Your task to perform on an android device: install app "Etsy: Buy & Sell Unique Items" Image 0: 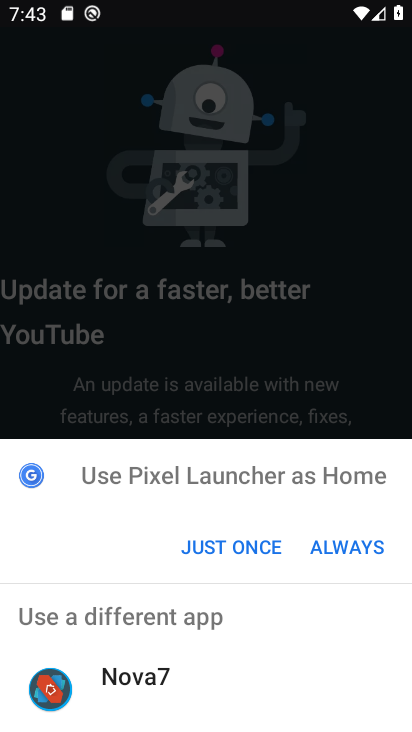
Step 0: press home button
Your task to perform on an android device: install app "Etsy: Buy & Sell Unique Items" Image 1: 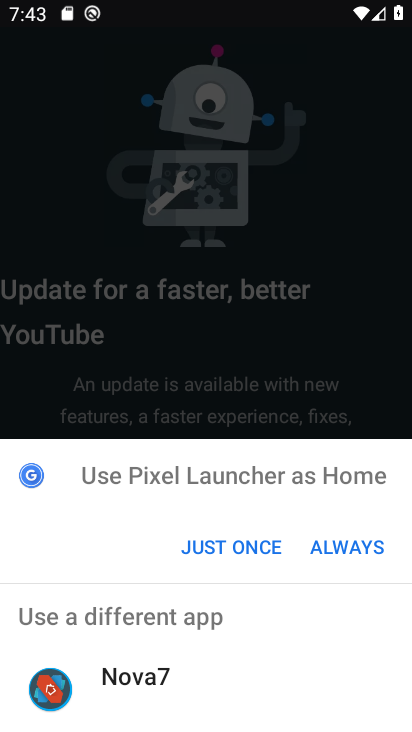
Step 1: press home button
Your task to perform on an android device: install app "Etsy: Buy & Sell Unique Items" Image 2: 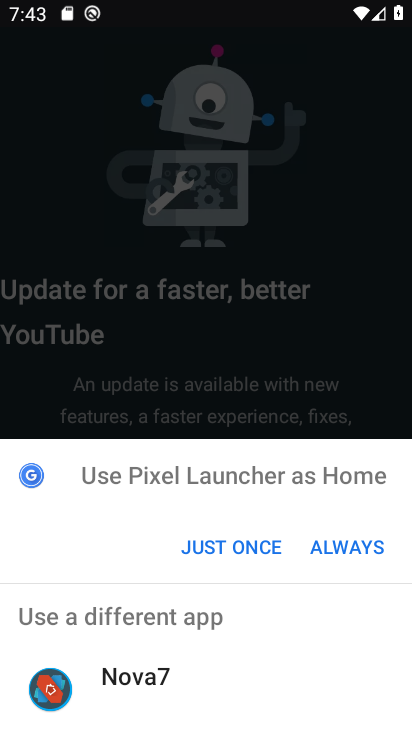
Step 2: press home button
Your task to perform on an android device: install app "Etsy: Buy & Sell Unique Items" Image 3: 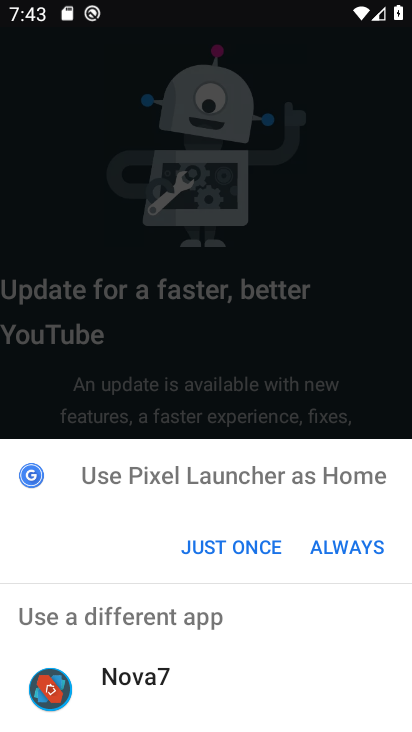
Step 3: press home button
Your task to perform on an android device: install app "Etsy: Buy & Sell Unique Items" Image 4: 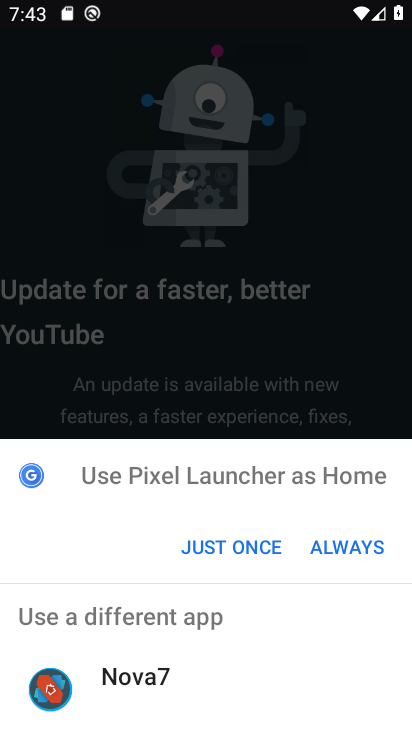
Step 4: press home button
Your task to perform on an android device: install app "Etsy: Buy & Sell Unique Items" Image 5: 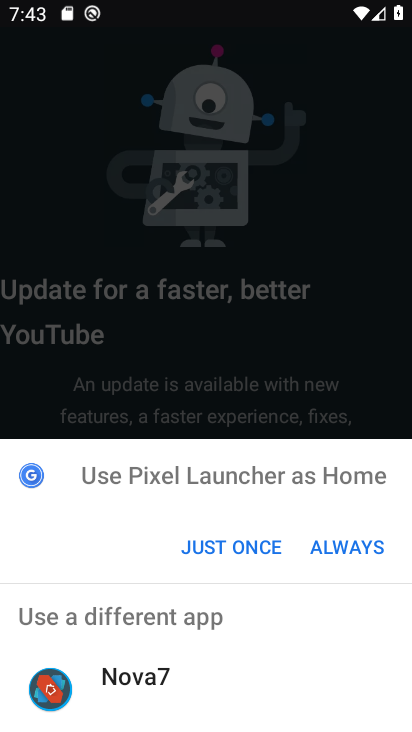
Step 5: press home button
Your task to perform on an android device: install app "Etsy: Buy & Sell Unique Items" Image 6: 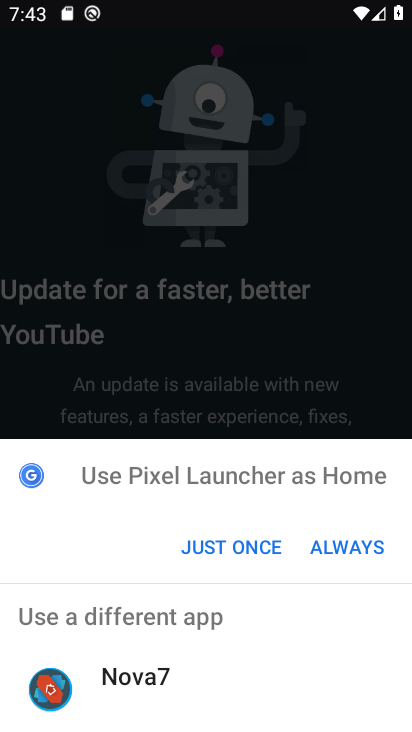
Step 6: press home button
Your task to perform on an android device: install app "Etsy: Buy & Sell Unique Items" Image 7: 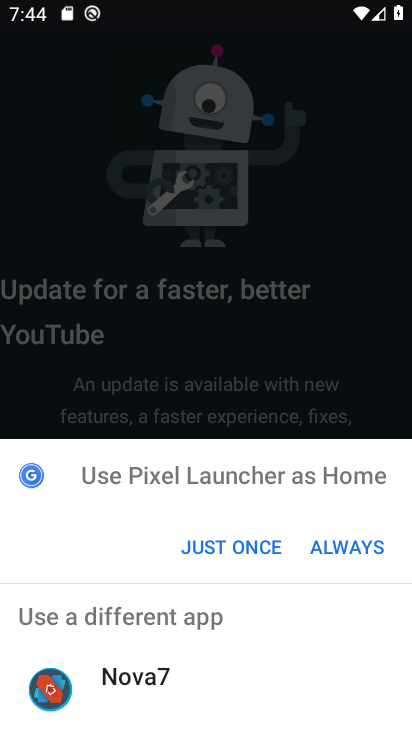
Step 7: press back button
Your task to perform on an android device: install app "Etsy: Buy & Sell Unique Items" Image 8: 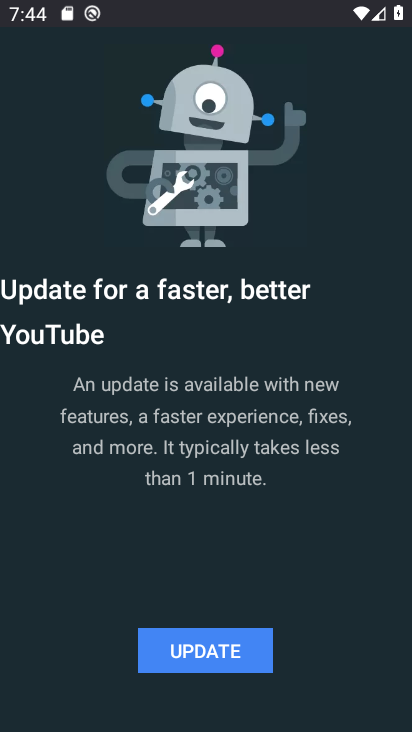
Step 8: press home button
Your task to perform on an android device: install app "Etsy: Buy & Sell Unique Items" Image 9: 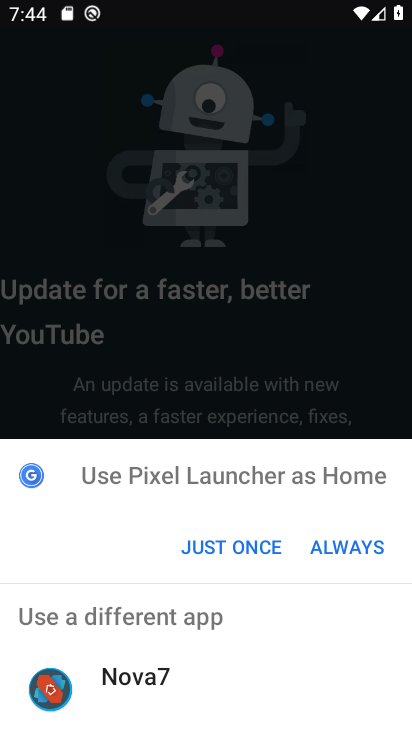
Step 9: click (247, 545)
Your task to perform on an android device: install app "Etsy: Buy & Sell Unique Items" Image 10: 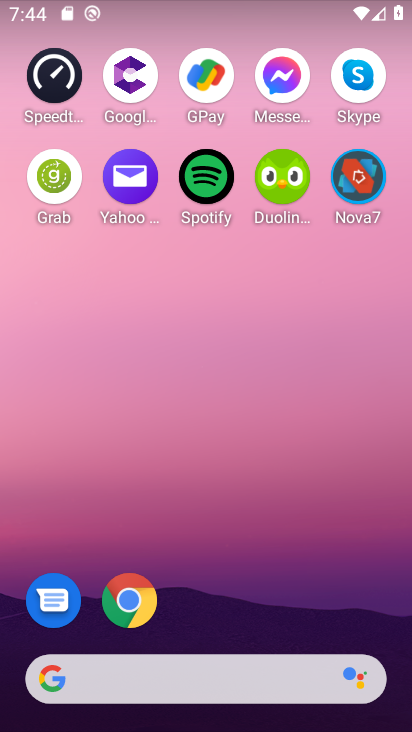
Step 10: drag from (202, 582) to (198, 60)
Your task to perform on an android device: install app "Etsy: Buy & Sell Unique Items" Image 11: 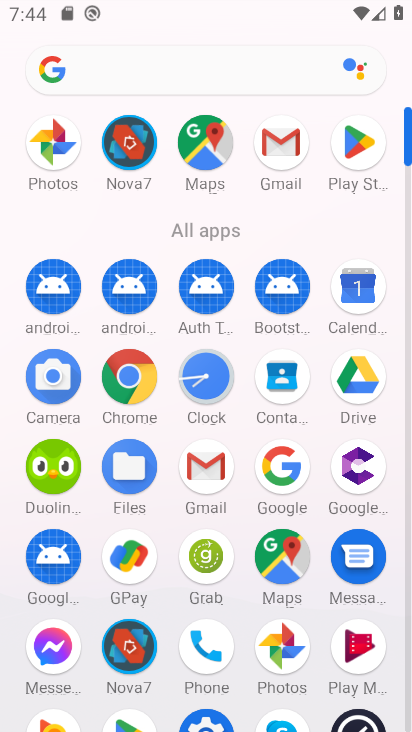
Step 11: click (357, 152)
Your task to perform on an android device: install app "Etsy: Buy & Sell Unique Items" Image 12: 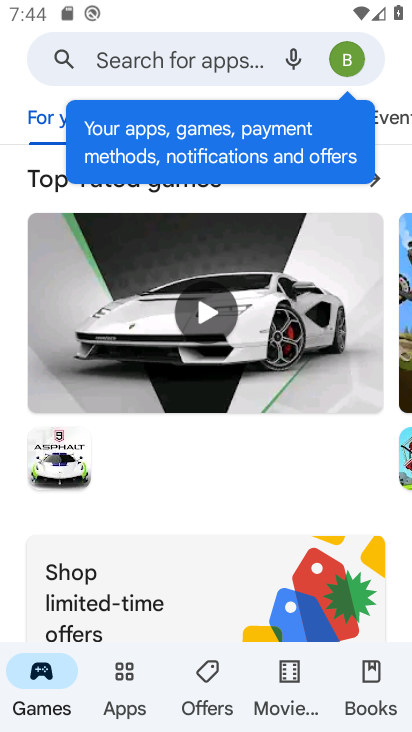
Step 12: click (197, 56)
Your task to perform on an android device: install app "Etsy: Buy & Sell Unique Items" Image 13: 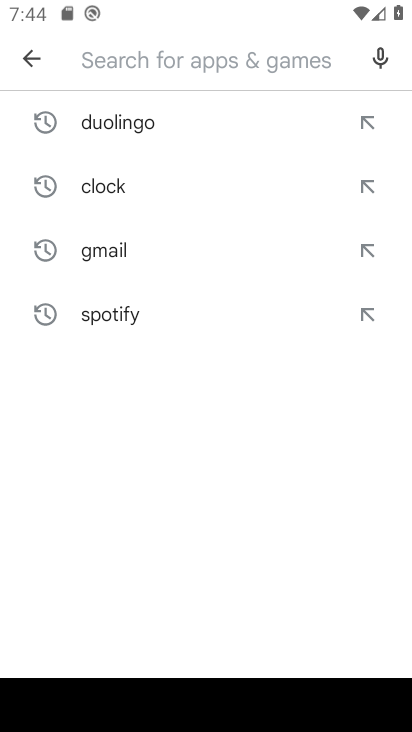
Step 13: type "Etsy"
Your task to perform on an android device: install app "Etsy: Buy & Sell Unique Items" Image 14: 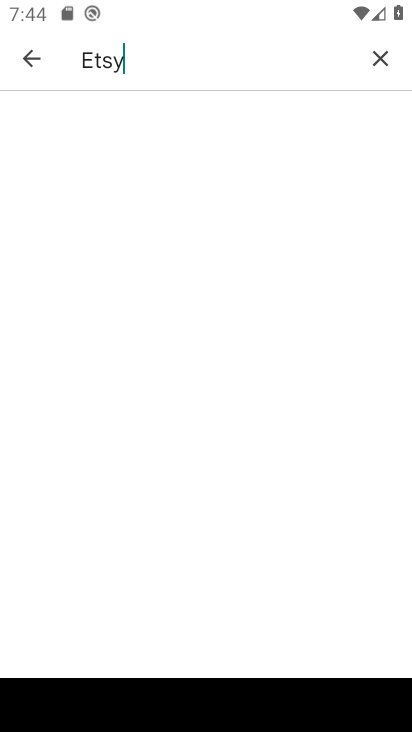
Step 14: click (377, 58)
Your task to perform on an android device: install app "Etsy: Buy & Sell Unique Items" Image 15: 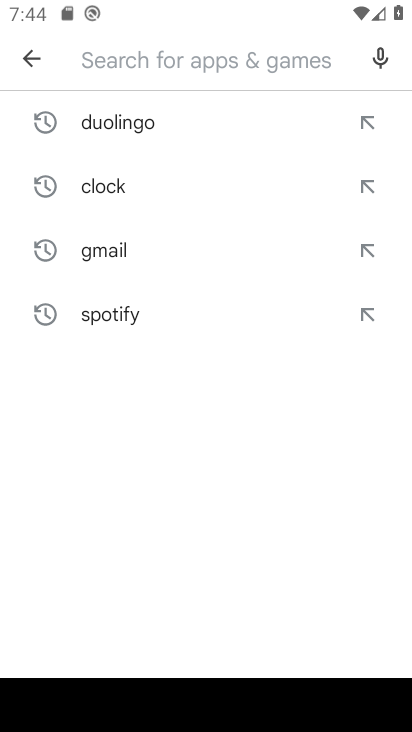
Step 15: type "Etsy: Buy & Sell Unique Items"
Your task to perform on an android device: install app "Etsy: Buy & Sell Unique Items" Image 16: 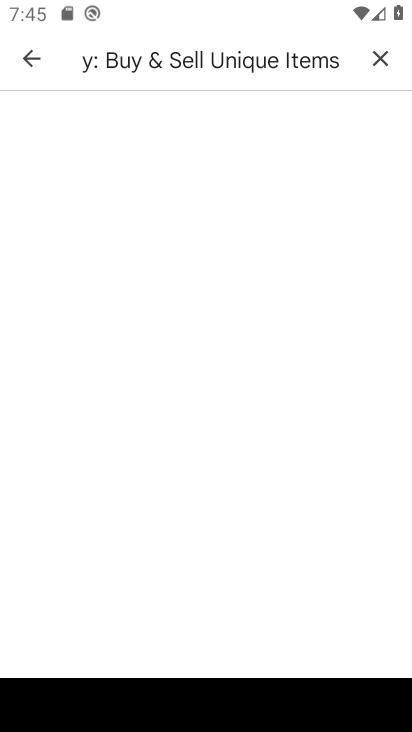
Step 16: click (22, 68)
Your task to perform on an android device: install app "Etsy: Buy & Sell Unique Items" Image 17: 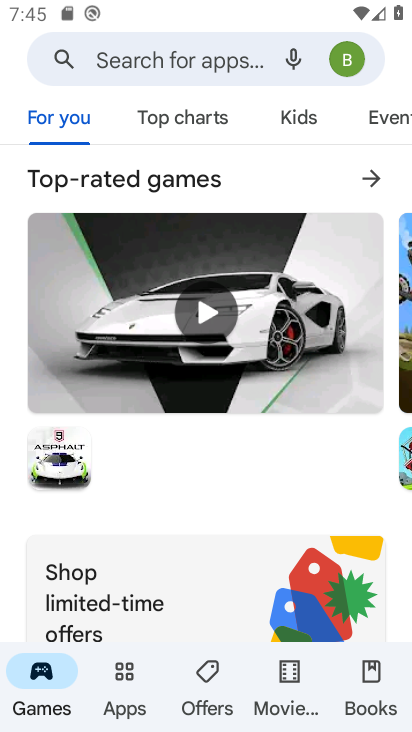
Step 17: click (115, 696)
Your task to perform on an android device: install app "Etsy: Buy & Sell Unique Items" Image 18: 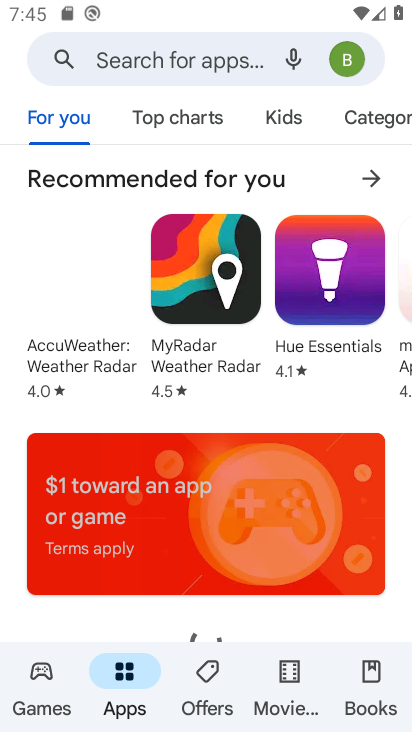
Step 18: click (150, 41)
Your task to perform on an android device: install app "Etsy: Buy & Sell Unique Items" Image 19: 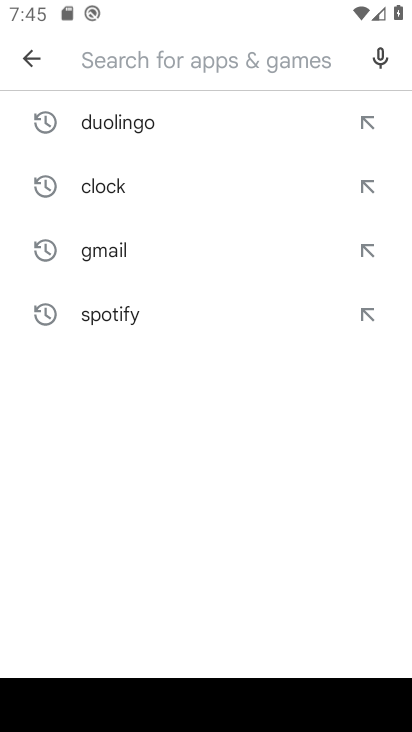
Step 19: click (137, 53)
Your task to perform on an android device: install app "Etsy: Buy & Sell Unique Items" Image 20: 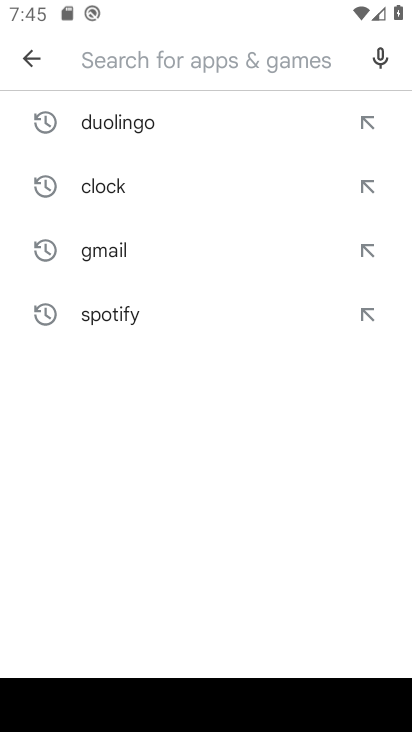
Step 20: type "Etsy: Buy & Sell Unique Items"
Your task to perform on an android device: install app "Etsy: Buy & Sell Unique Items" Image 21: 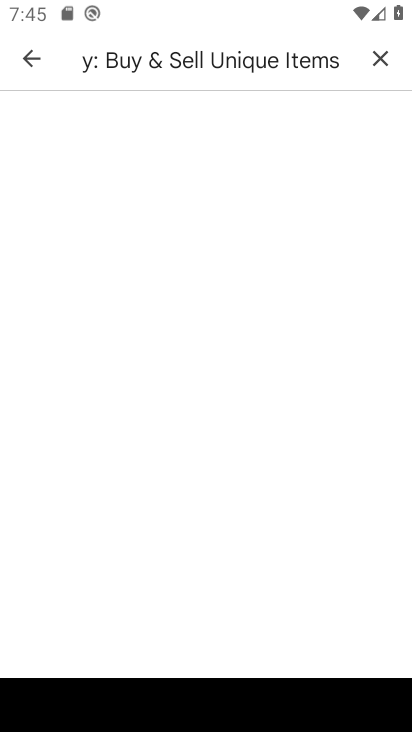
Step 21: click (385, 61)
Your task to perform on an android device: install app "Etsy: Buy & Sell Unique Items" Image 22: 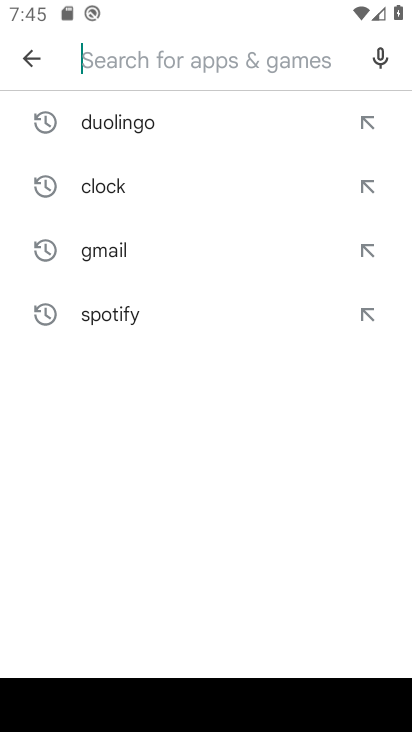
Step 22: type "Etsy"
Your task to perform on an android device: install app "Etsy: Buy & Sell Unique Items" Image 23: 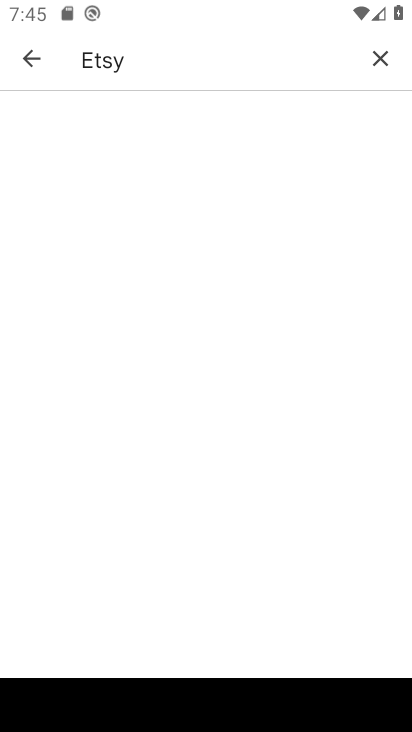
Step 23: click (380, 63)
Your task to perform on an android device: install app "Etsy: Buy & Sell Unique Items" Image 24: 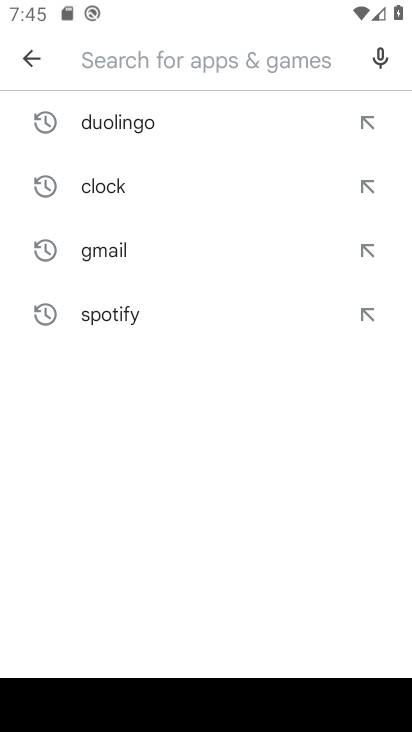
Step 24: task complete